Your task to perform on an android device: Search for the best rated 4k tvs on Walmart. Image 0: 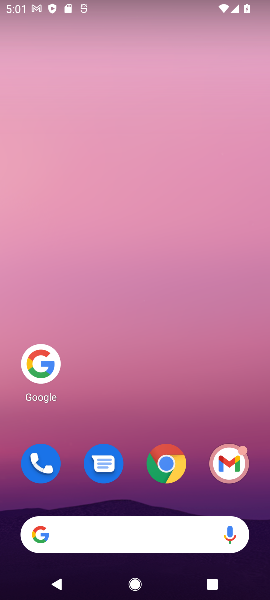
Step 0: click (34, 365)
Your task to perform on an android device: Search for the best rated 4k tvs on Walmart. Image 1: 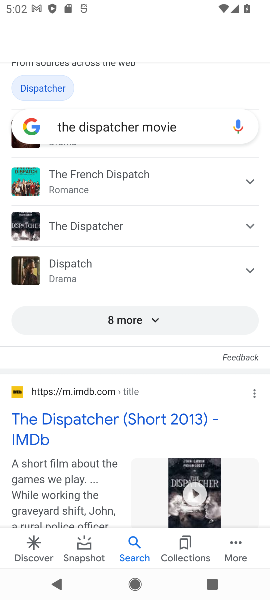
Step 1: click (104, 122)
Your task to perform on an android device: Search for the best rated 4k tvs on Walmart. Image 2: 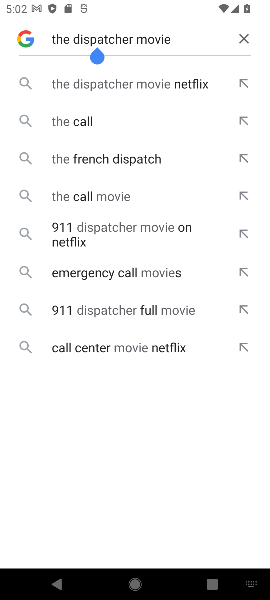
Step 2: click (246, 35)
Your task to perform on an android device: Search for the best rated 4k tvs on Walmart. Image 3: 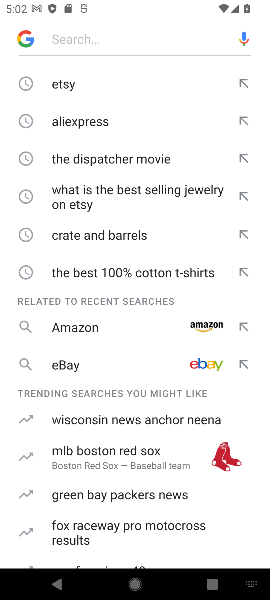
Step 3: click (138, 31)
Your task to perform on an android device: Search for the best rated 4k tvs on Walmart. Image 4: 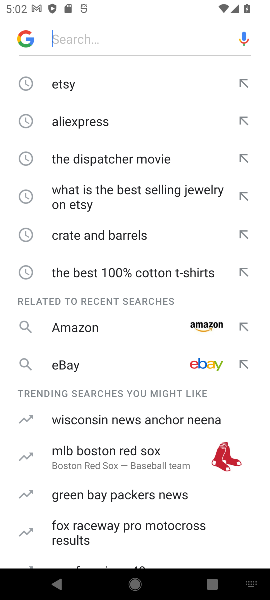
Step 4: type " best rated 4k tvs on Walmart "
Your task to perform on an android device: Search for the best rated 4k tvs on Walmart. Image 5: 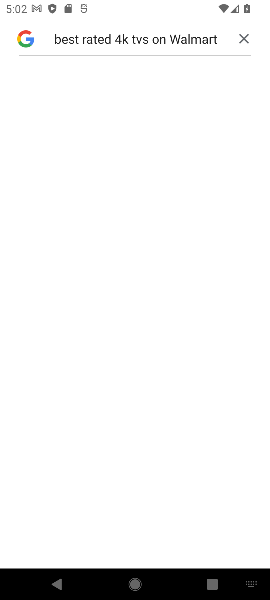
Step 5: click (127, 38)
Your task to perform on an android device: Search for the best rated 4k tvs on Walmart. Image 6: 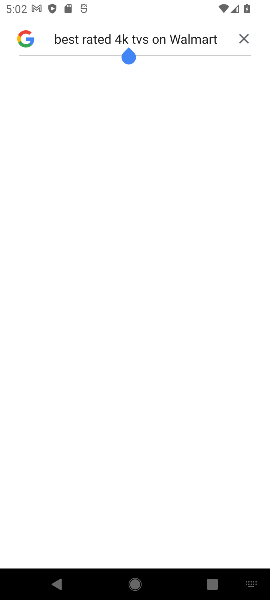
Step 6: click (212, 32)
Your task to perform on an android device: Search for the best rated 4k tvs on Walmart. Image 7: 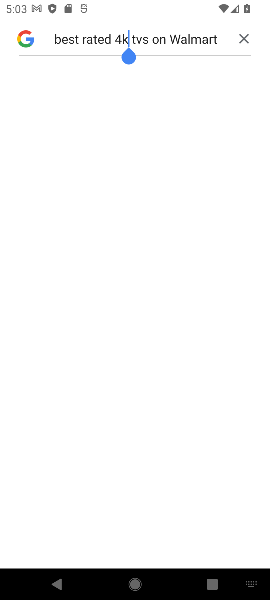
Step 7: click (212, 32)
Your task to perform on an android device: Search for the best rated 4k tvs on Walmart. Image 8: 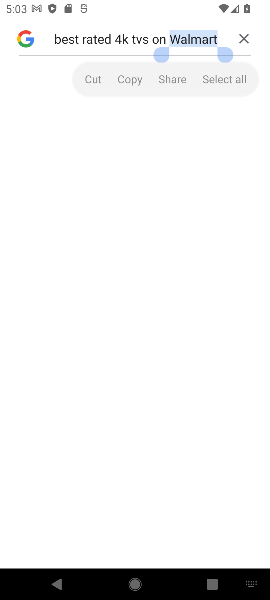
Step 8: click (212, 33)
Your task to perform on an android device: Search for the best rated 4k tvs on Walmart. Image 9: 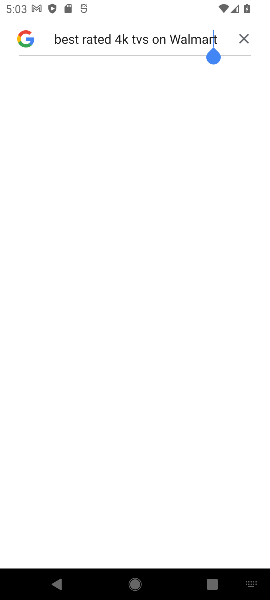
Step 9: click (246, 32)
Your task to perform on an android device: Search for the best rated 4k tvs on Walmart. Image 10: 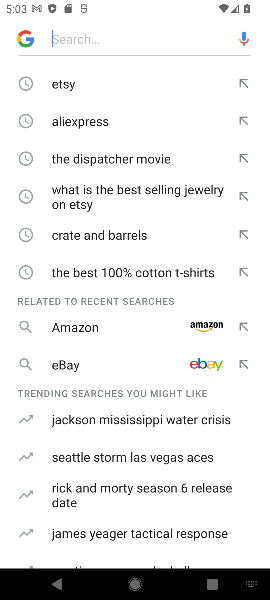
Step 10: click (140, 37)
Your task to perform on an android device: Search for the best rated 4k tvs on Walmart. Image 11: 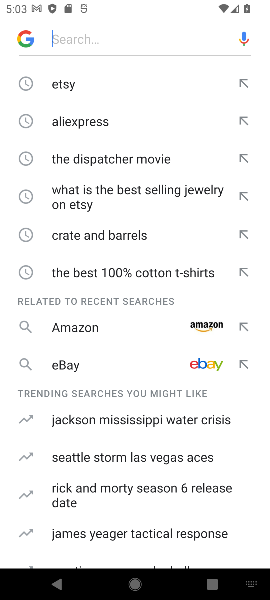
Step 11: type "the best rated 4k tvs  "
Your task to perform on an android device: Search for the best rated 4k tvs on Walmart. Image 12: 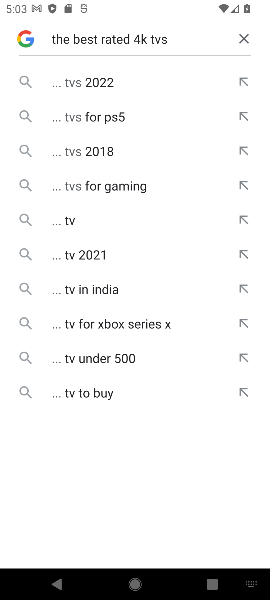
Step 12: click (78, 219)
Your task to perform on an android device: Search for the best rated 4k tvs on Walmart. Image 13: 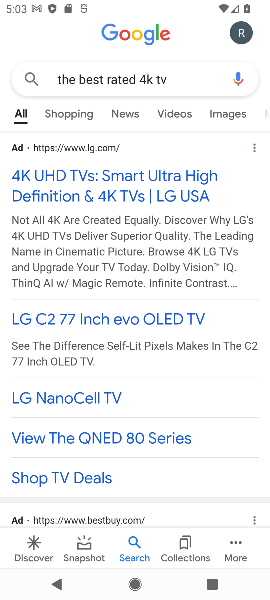
Step 13: drag from (98, 477) to (157, 144)
Your task to perform on an android device: Search for the best rated 4k tvs on Walmart. Image 14: 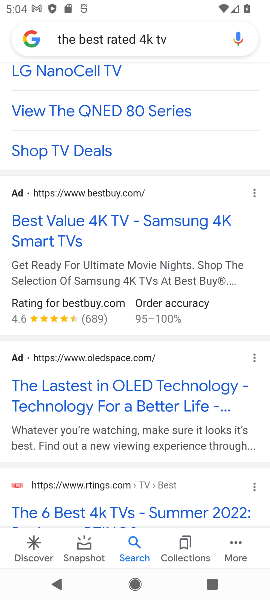
Step 14: drag from (104, 449) to (143, 203)
Your task to perform on an android device: Search for the best rated 4k tvs on Walmart. Image 15: 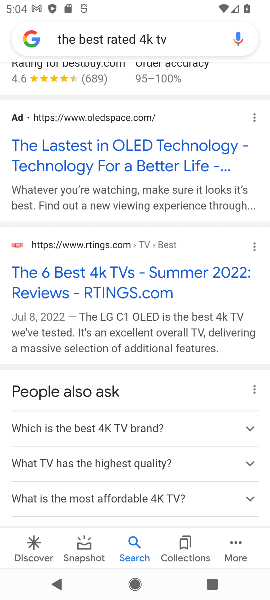
Step 15: drag from (153, 98) to (137, 448)
Your task to perform on an android device: Search for the best rated 4k tvs on Walmart. Image 16: 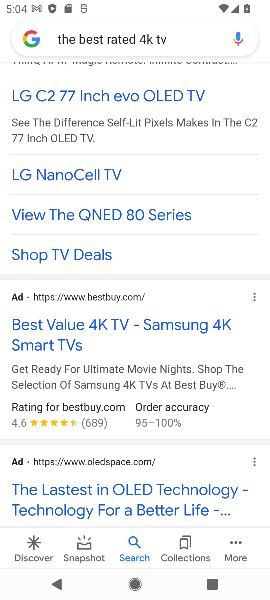
Step 16: drag from (156, 133) to (161, 459)
Your task to perform on an android device: Search for the best rated 4k tvs on Walmart. Image 17: 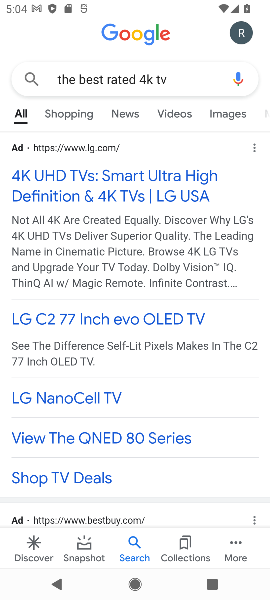
Step 17: drag from (133, 465) to (203, 174)
Your task to perform on an android device: Search for the best rated 4k tvs on Walmart. Image 18: 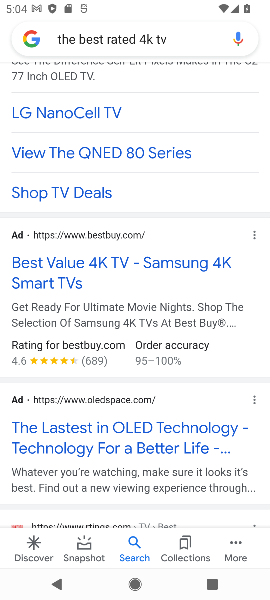
Step 18: drag from (107, 479) to (178, 209)
Your task to perform on an android device: Search for the best rated 4k tvs on Walmart. Image 19: 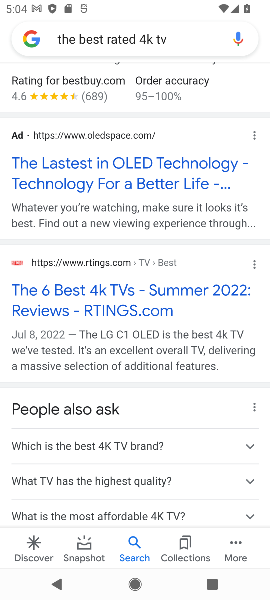
Step 19: drag from (107, 528) to (191, 183)
Your task to perform on an android device: Search for the best rated 4k tvs on Walmart. Image 20: 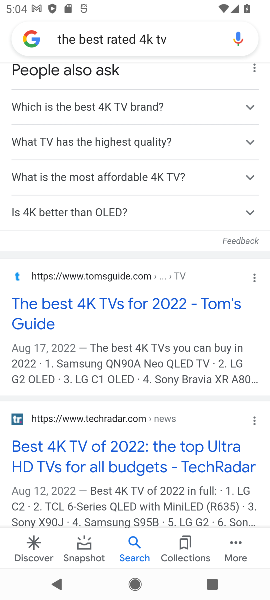
Step 20: drag from (168, 475) to (217, 172)
Your task to perform on an android device: Search for the best rated 4k tvs on Walmart. Image 21: 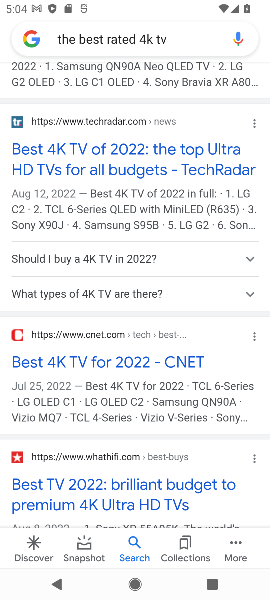
Step 21: drag from (133, 498) to (197, 164)
Your task to perform on an android device: Search for the best rated 4k tvs on Walmart. Image 22: 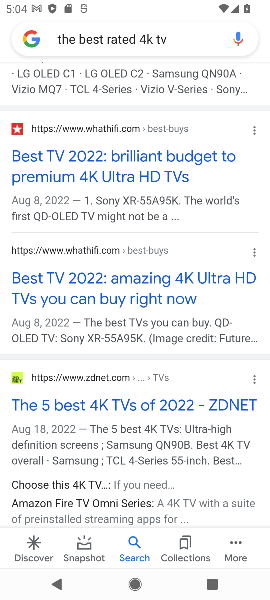
Step 22: drag from (143, 457) to (187, 189)
Your task to perform on an android device: Search for the best rated 4k tvs on Walmart. Image 23: 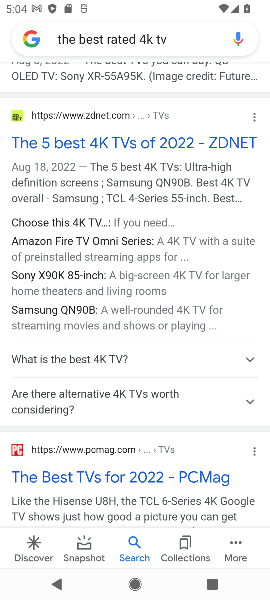
Step 23: drag from (138, 488) to (185, 176)
Your task to perform on an android device: Search for the best rated 4k tvs on Walmart. Image 24: 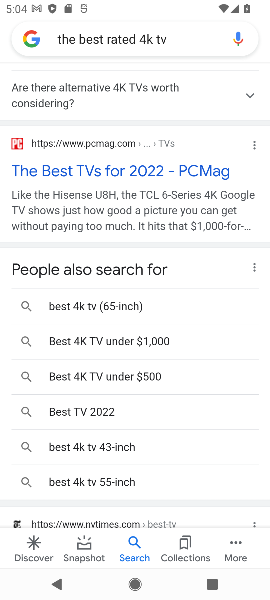
Step 24: drag from (163, 477) to (210, 214)
Your task to perform on an android device: Search for the best rated 4k tvs on Walmart. Image 25: 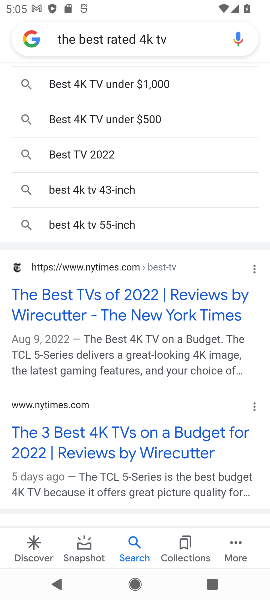
Step 25: drag from (152, 452) to (158, 292)
Your task to perform on an android device: Search for the best rated 4k tvs on Walmart. Image 26: 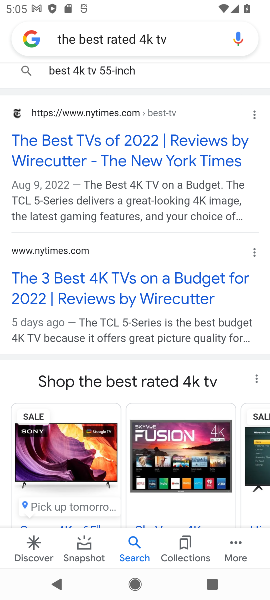
Step 26: drag from (156, 420) to (251, 88)
Your task to perform on an android device: Search for the best rated 4k tvs on Walmart. Image 27: 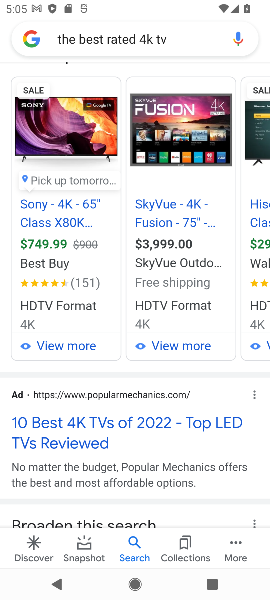
Step 27: drag from (112, 453) to (148, 126)
Your task to perform on an android device: Search for the best rated 4k tvs on Walmart. Image 28: 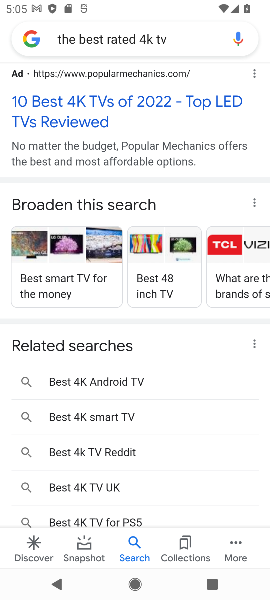
Step 28: drag from (139, 115) to (123, 519)
Your task to perform on an android device: Search for the best rated 4k tvs on Walmart. Image 29: 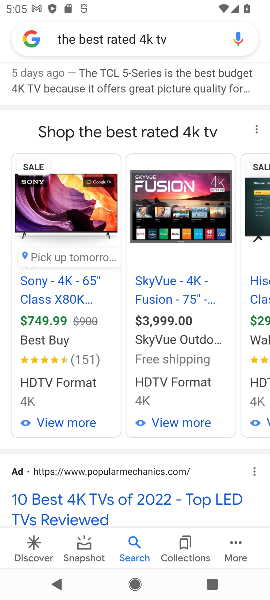
Step 29: drag from (137, 403) to (116, 508)
Your task to perform on an android device: Search for the best rated 4k tvs on Walmart. Image 30: 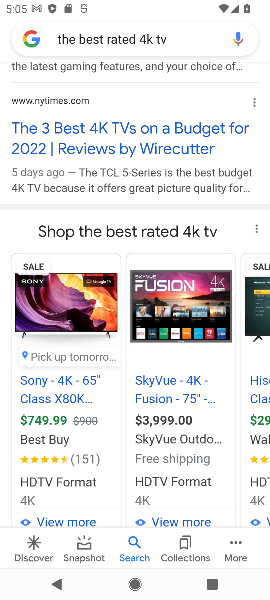
Step 30: drag from (136, 130) to (154, 462)
Your task to perform on an android device: Search for the best rated 4k tvs on Walmart. Image 31: 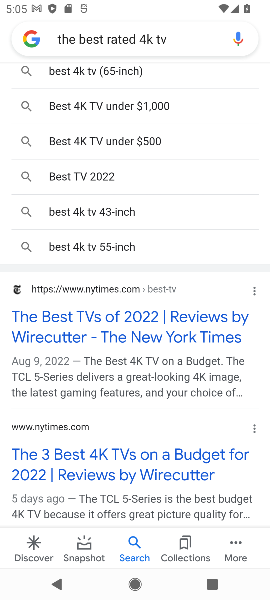
Step 31: drag from (151, 107) to (123, 507)
Your task to perform on an android device: Search for the best rated 4k tvs on Walmart. Image 32: 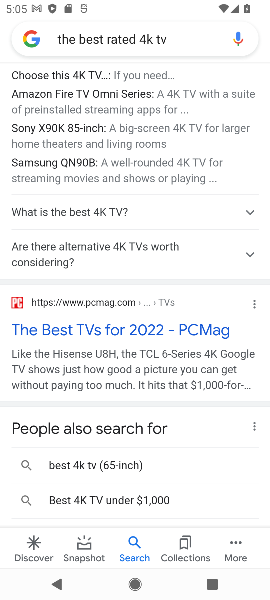
Step 32: drag from (171, 130) to (142, 536)
Your task to perform on an android device: Search for the best rated 4k tvs on Walmart. Image 33: 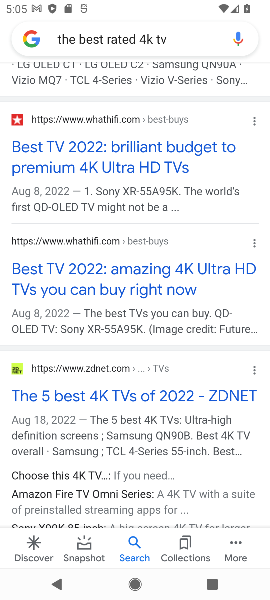
Step 33: drag from (161, 154) to (144, 524)
Your task to perform on an android device: Search for the best rated 4k tvs on Walmart. Image 34: 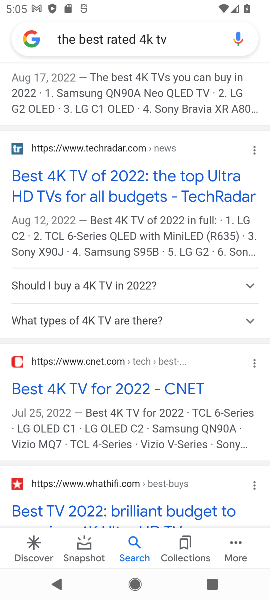
Step 34: drag from (148, 136) to (126, 479)
Your task to perform on an android device: Search for the best rated 4k tvs on Walmart. Image 35: 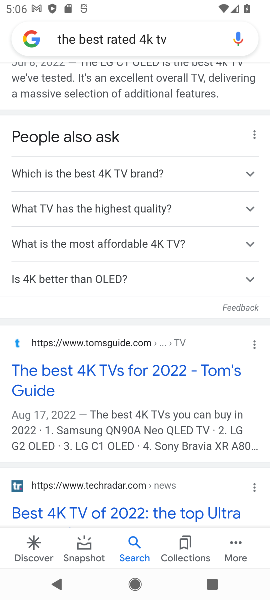
Step 35: click (137, 415)
Your task to perform on an android device: Search for the best rated 4k tvs on Walmart. Image 36: 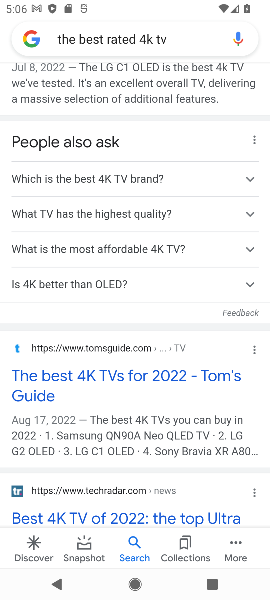
Step 36: drag from (98, 119) to (108, 553)
Your task to perform on an android device: Search for the best rated 4k tvs on Walmart. Image 37: 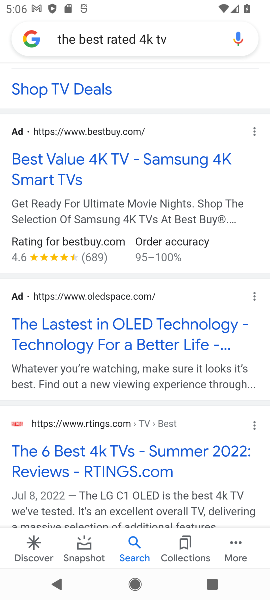
Step 37: drag from (157, 98) to (162, 397)
Your task to perform on an android device: Search for the best rated 4k tvs on Walmart. Image 38: 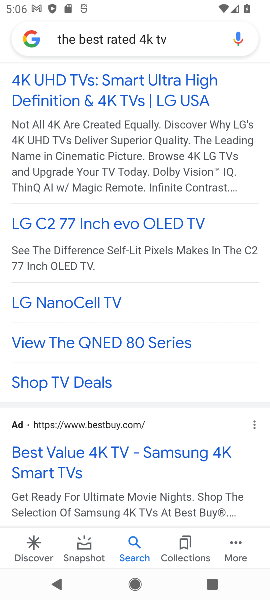
Step 38: drag from (156, 101) to (146, 421)
Your task to perform on an android device: Search for the best rated 4k tvs on Walmart. Image 39: 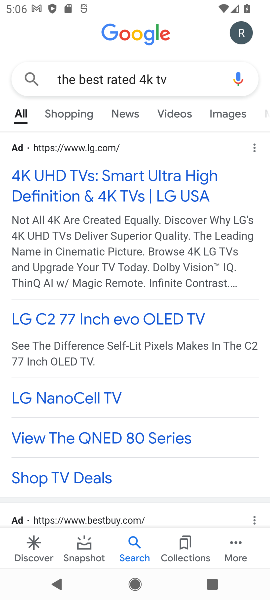
Step 39: click (174, 73)
Your task to perform on an android device: Search for the best rated 4k tvs on Walmart. Image 40: 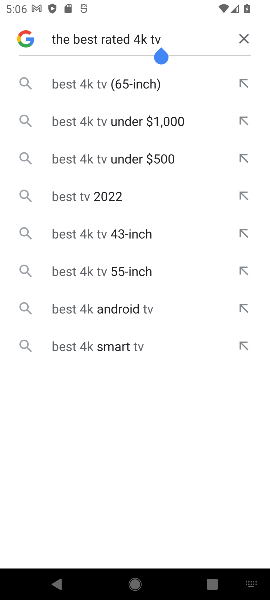
Step 40: click (249, 24)
Your task to perform on an android device: Search for the best rated 4k tvs on Walmart. Image 41: 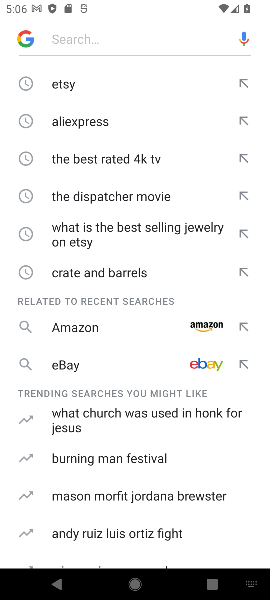
Step 41: click (121, 28)
Your task to perform on an android device: Search for the best rated 4k tvs on Walmart. Image 42: 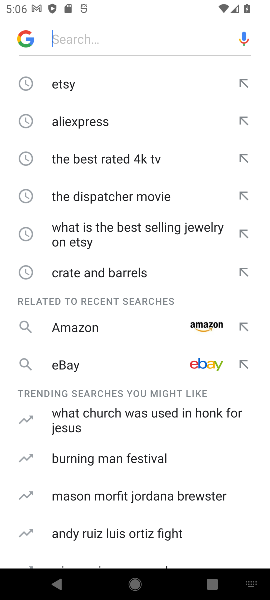
Step 42: type " best rated 4k tvs on Walmart "
Your task to perform on an android device: Search for the best rated 4k tvs on Walmart. Image 43: 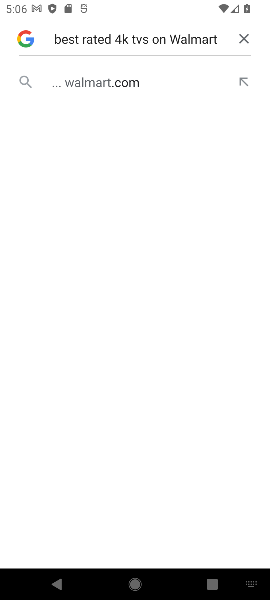
Step 43: click (106, 86)
Your task to perform on an android device: Search for the best rated 4k tvs on Walmart. Image 44: 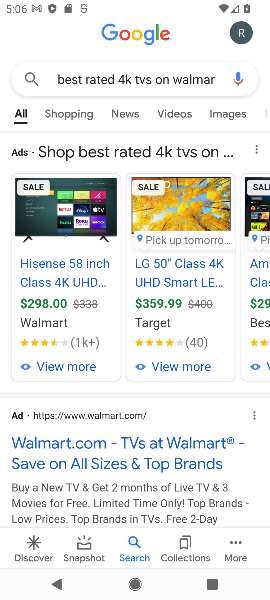
Step 44: task complete